Your task to perform on an android device: turn on wifi Image 0: 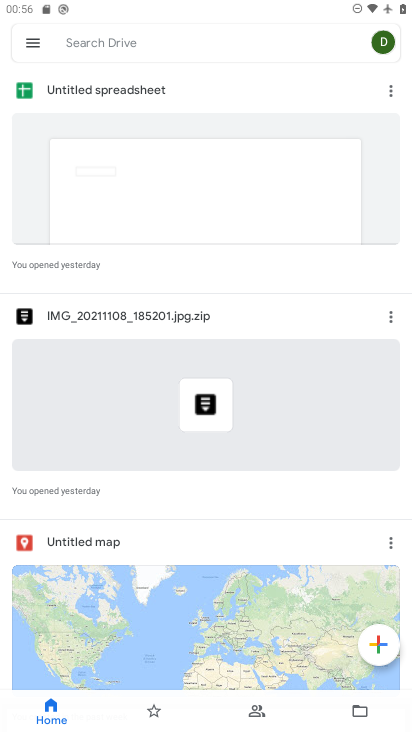
Step 0: press home button
Your task to perform on an android device: turn on wifi Image 1: 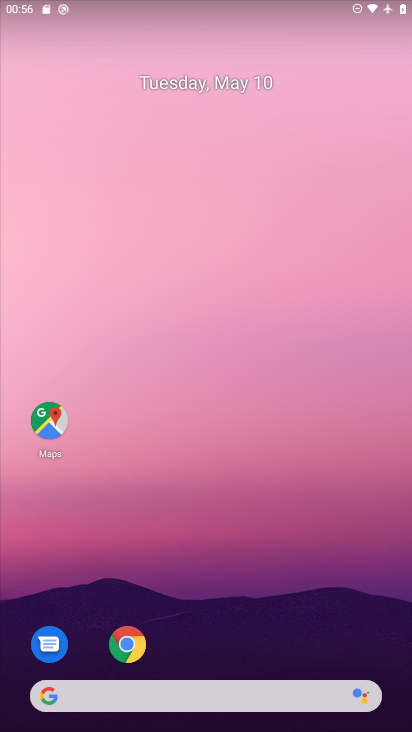
Step 1: drag from (237, 623) to (225, 263)
Your task to perform on an android device: turn on wifi Image 2: 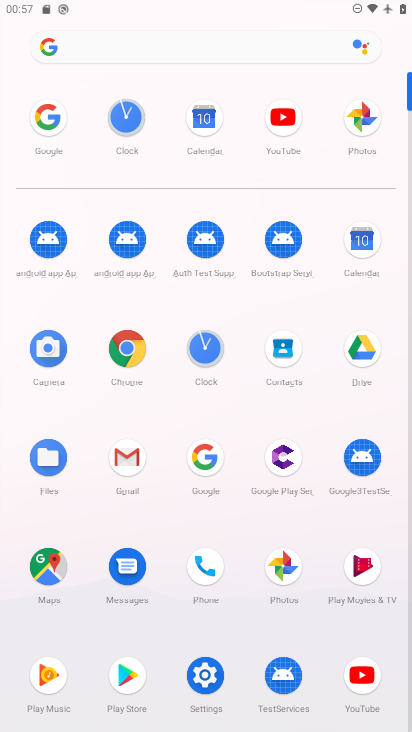
Step 2: click (198, 656)
Your task to perform on an android device: turn on wifi Image 3: 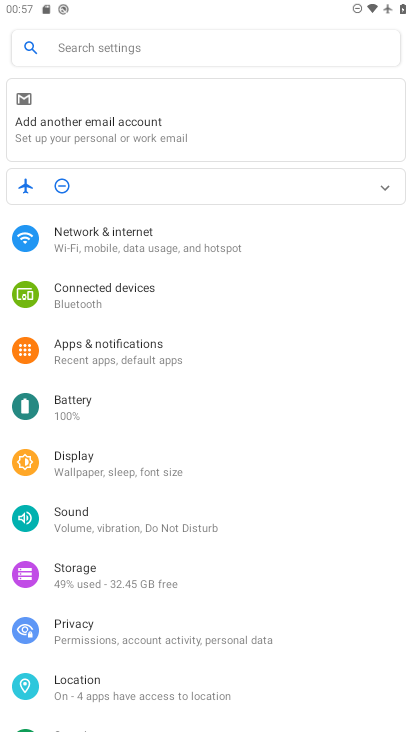
Step 3: click (131, 247)
Your task to perform on an android device: turn on wifi Image 4: 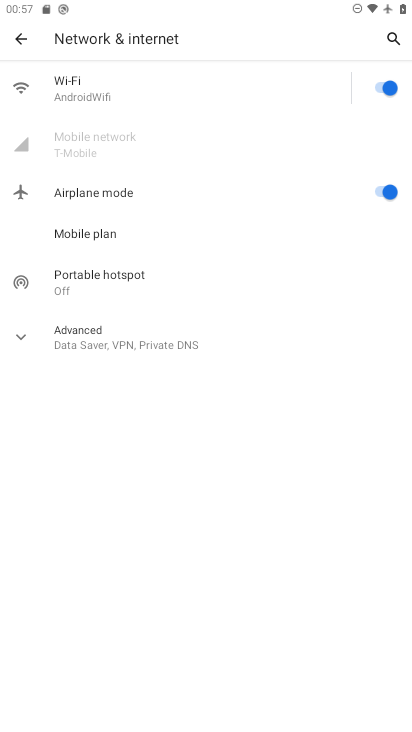
Step 4: task complete